Your task to perform on an android device: see tabs open on other devices in the chrome app Image 0: 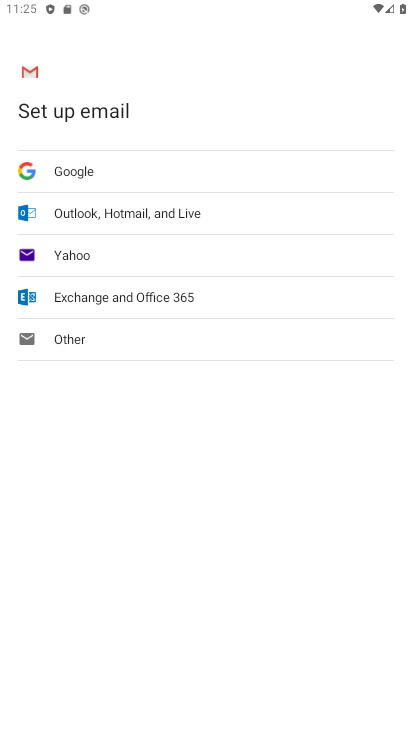
Step 0: press home button
Your task to perform on an android device: see tabs open on other devices in the chrome app Image 1: 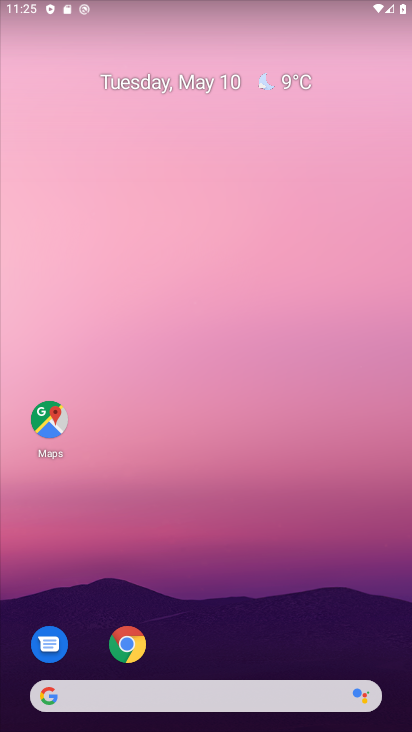
Step 1: click (141, 640)
Your task to perform on an android device: see tabs open on other devices in the chrome app Image 2: 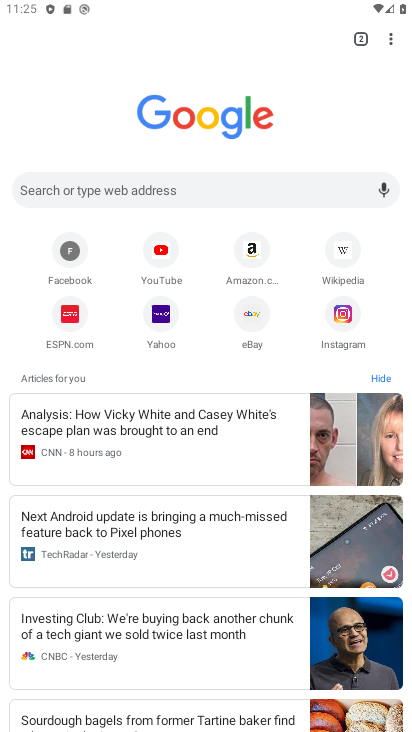
Step 2: click (397, 37)
Your task to perform on an android device: see tabs open on other devices in the chrome app Image 3: 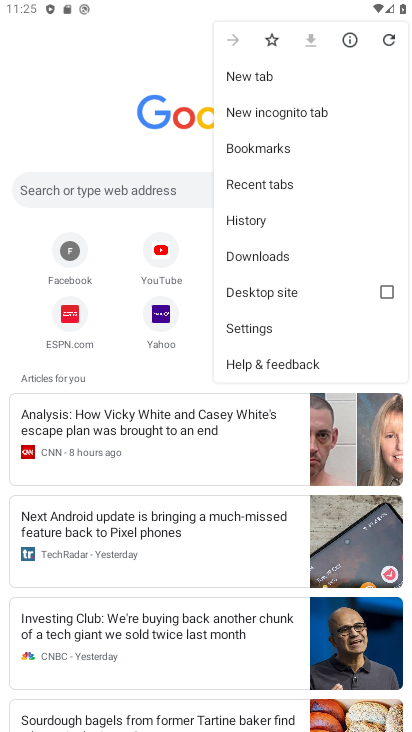
Step 3: click (265, 183)
Your task to perform on an android device: see tabs open on other devices in the chrome app Image 4: 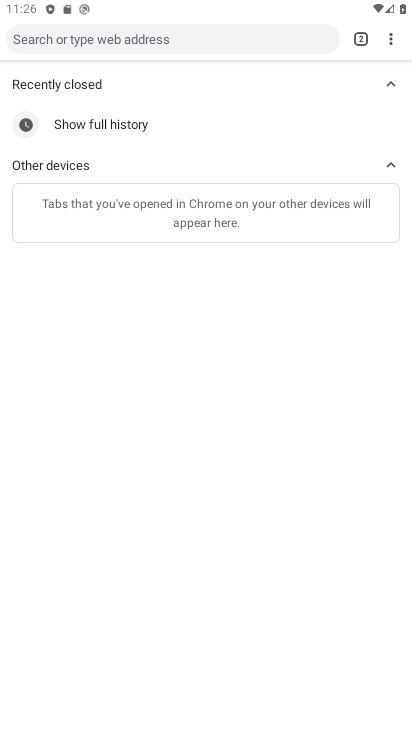
Step 4: task complete